Your task to perform on an android device: Open the phone app and click the voicemail tab. Image 0: 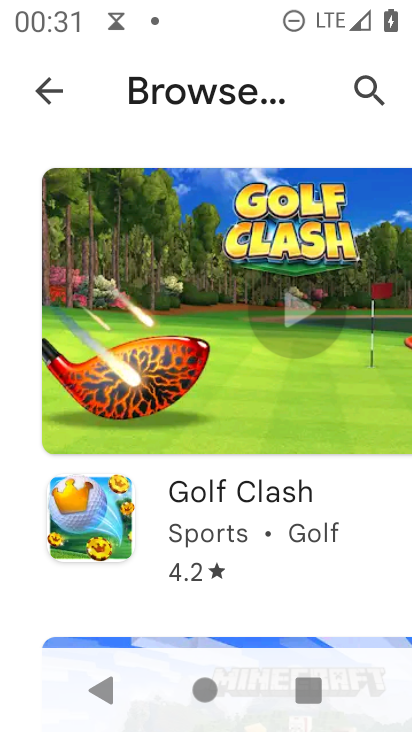
Step 0: press home button
Your task to perform on an android device: Open the phone app and click the voicemail tab. Image 1: 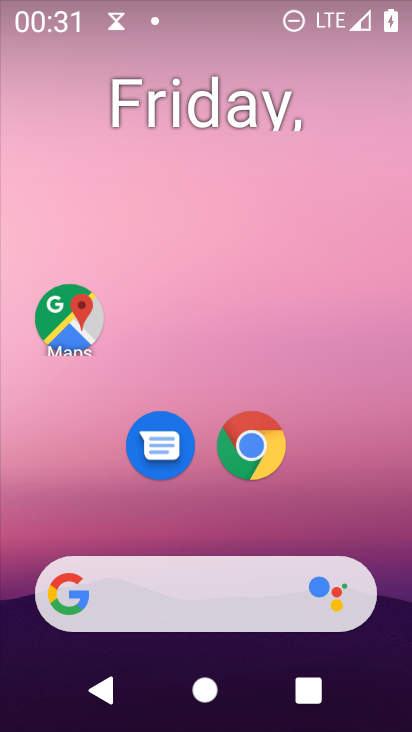
Step 1: drag from (227, 715) to (227, 114)
Your task to perform on an android device: Open the phone app and click the voicemail tab. Image 2: 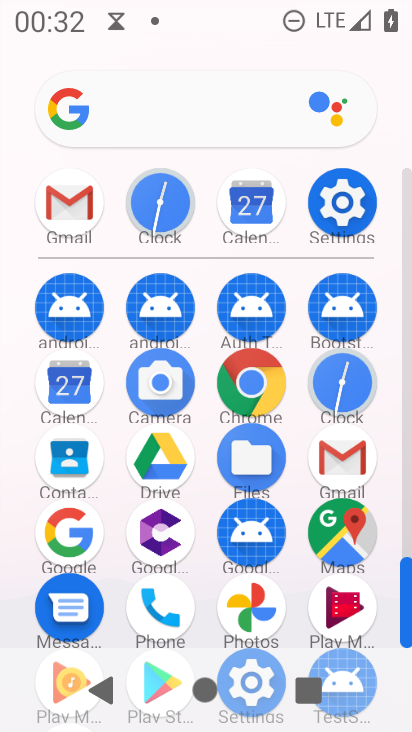
Step 2: drag from (292, 599) to (280, 179)
Your task to perform on an android device: Open the phone app and click the voicemail tab. Image 3: 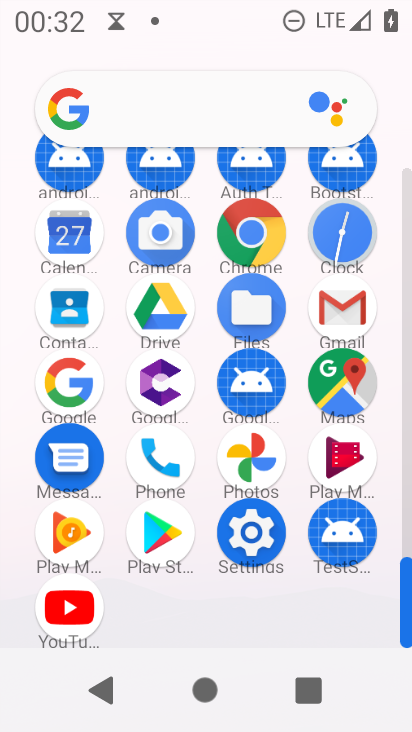
Step 3: click (165, 459)
Your task to perform on an android device: Open the phone app and click the voicemail tab. Image 4: 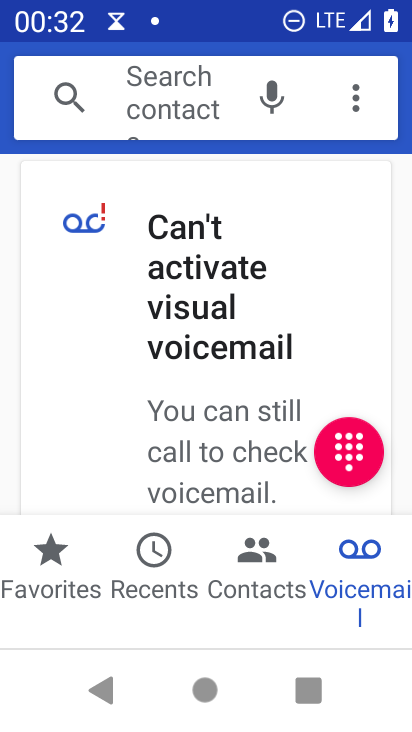
Step 4: task complete